Your task to perform on an android device: Play the last video I watched on Youtube Image 0: 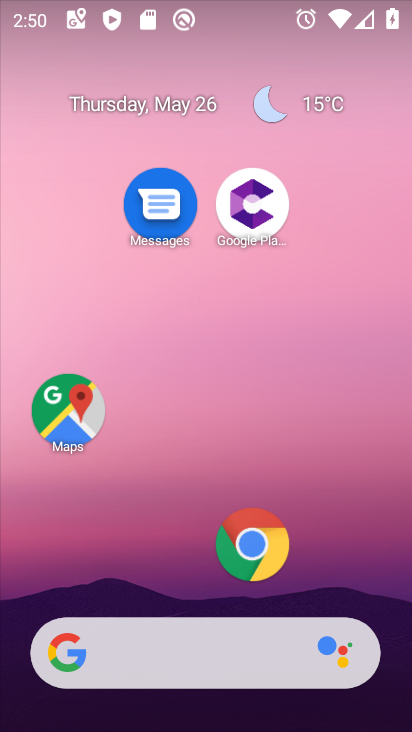
Step 0: drag from (203, 611) to (223, 255)
Your task to perform on an android device: Play the last video I watched on Youtube Image 1: 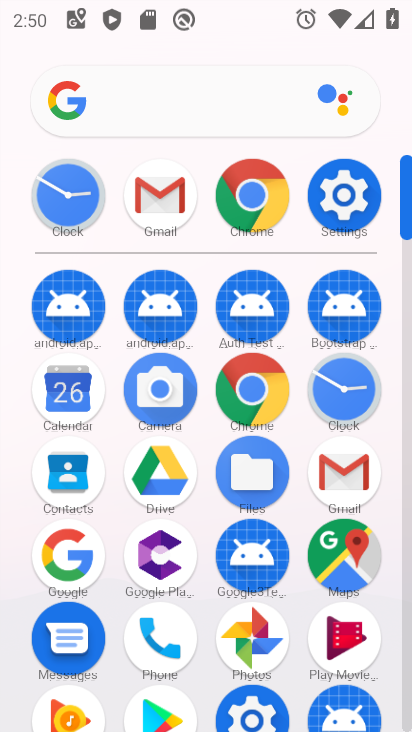
Step 1: drag from (205, 602) to (228, 270)
Your task to perform on an android device: Play the last video I watched on Youtube Image 2: 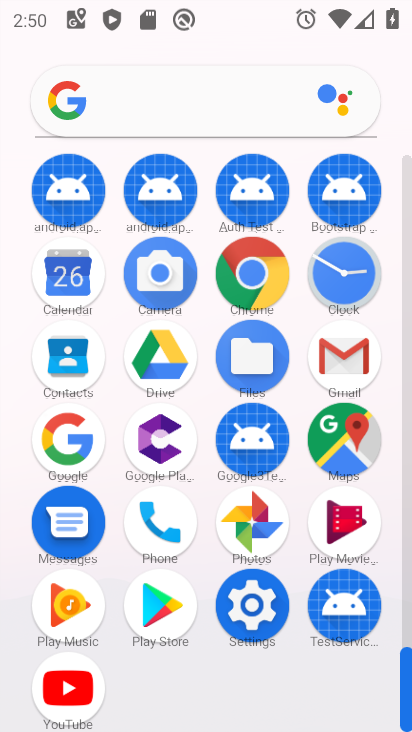
Step 2: click (60, 692)
Your task to perform on an android device: Play the last video I watched on Youtube Image 3: 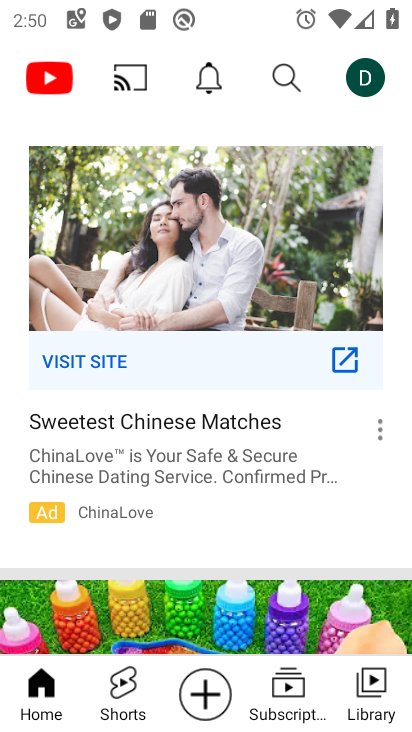
Step 3: drag from (99, 134) to (113, 635)
Your task to perform on an android device: Play the last video I watched on Youtube Image 4: 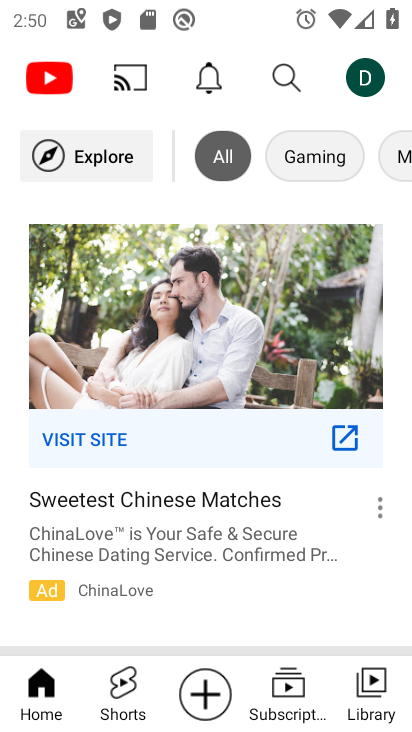
Step 4: click (88, 162)
Your task to perform on an android device: Play the last video I watched on Youtube Image 5: 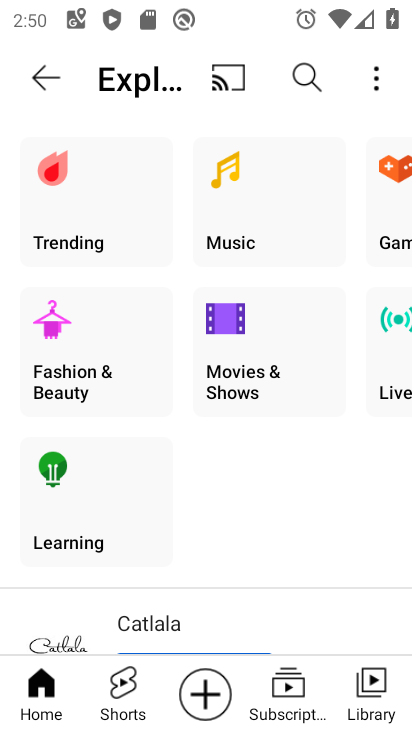
Step 5: click (360, 691)
Your task to perform on an android device: Play the last video I watched on Youtube Image 6: 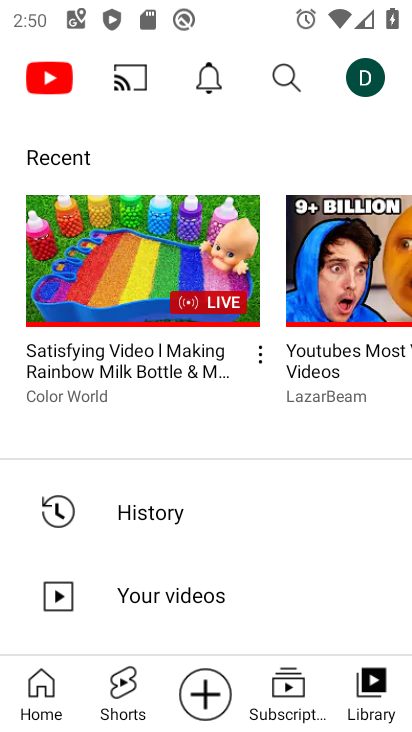
Step 6: click (110, 226)
Your task to perform on an android device: Play the last video I watched on Youtube Image 7: 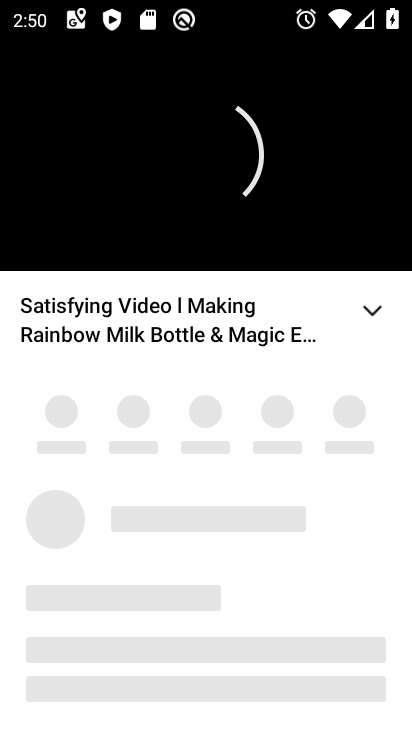
Step 7: task complete